Your task to perform on an android device: Open accessibility settings Image 0: 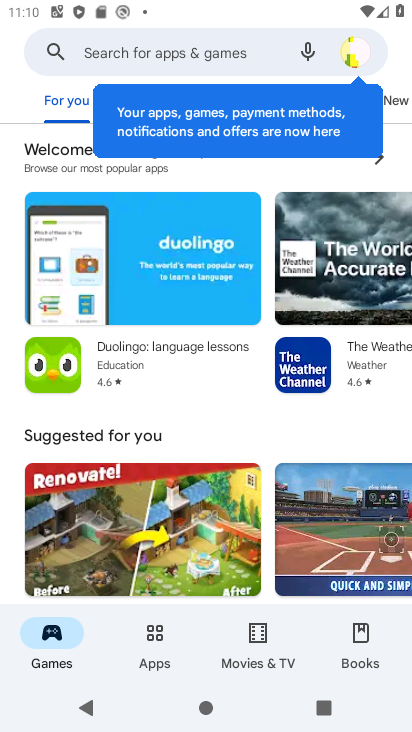
Step 0: press home button
Your task to perform on an android device: Open accessibility settings Image 1: 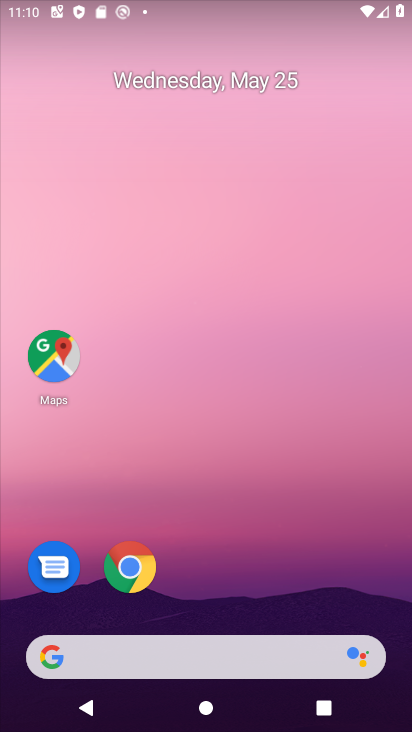
Step 1: drag from (203, 612) to (246, 8)
Your task to perform on an android device: Open accessibility settings Image 2: 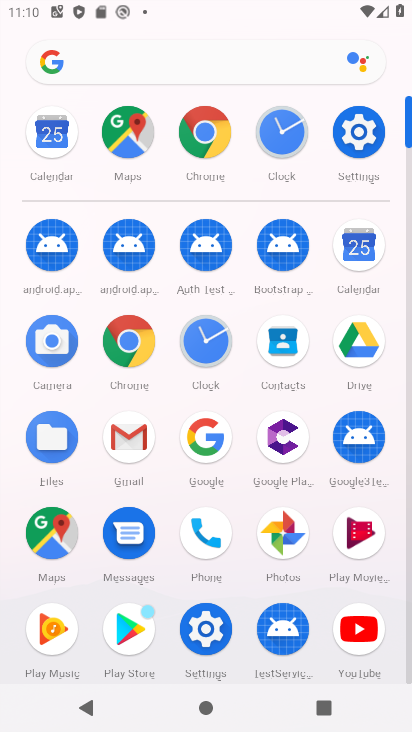
Step 2: click (346, 153)
Your task to perform on an android device: Open accessibility settings Image 3: 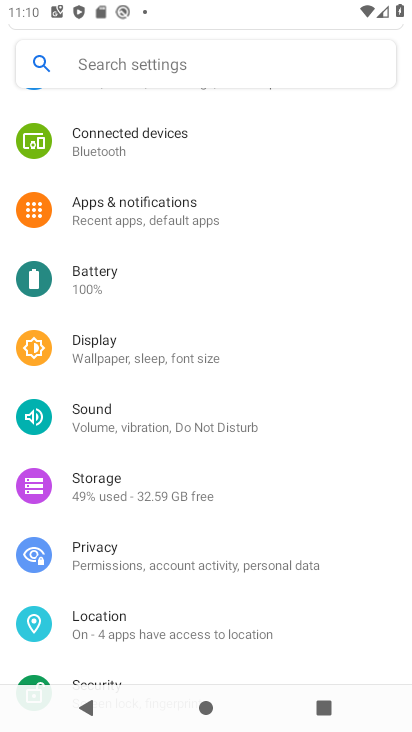
Step 3: drag from (162, 615) to (216, 392)
Your task to perform on an android device: Open accessibility settings Image 4: 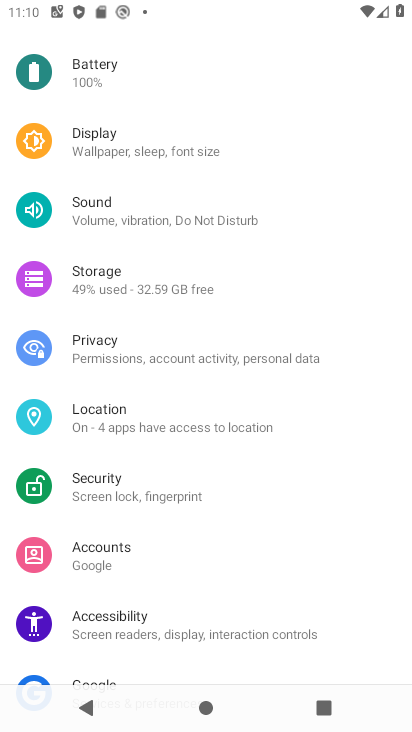
Step 4: drag from (185, 562) to (210, 390)
Your task to perform on an android device: Open accessibility settings Image 5: 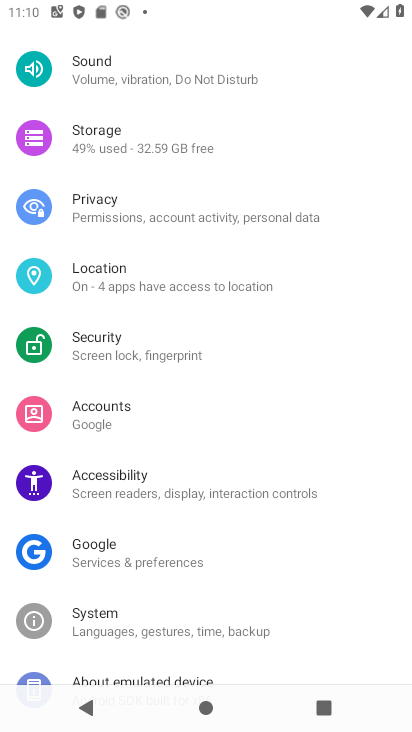
Step 5: click (166, 496)
Your task to perform on an android device: Open accessibility settings Image 6: 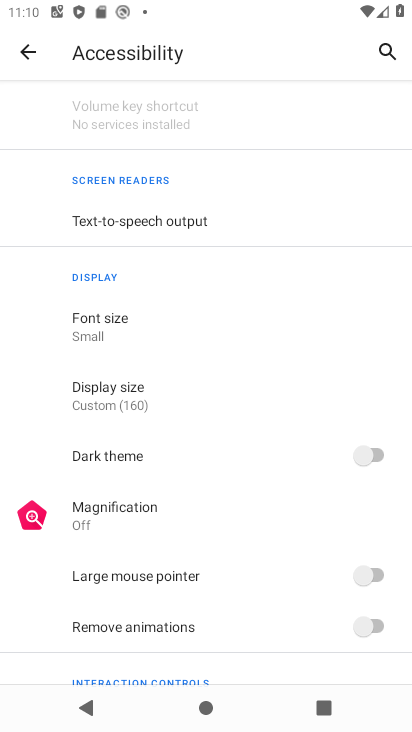
Step 6: task complete